Your task to perform on an android device: Open internet settings Image 0: 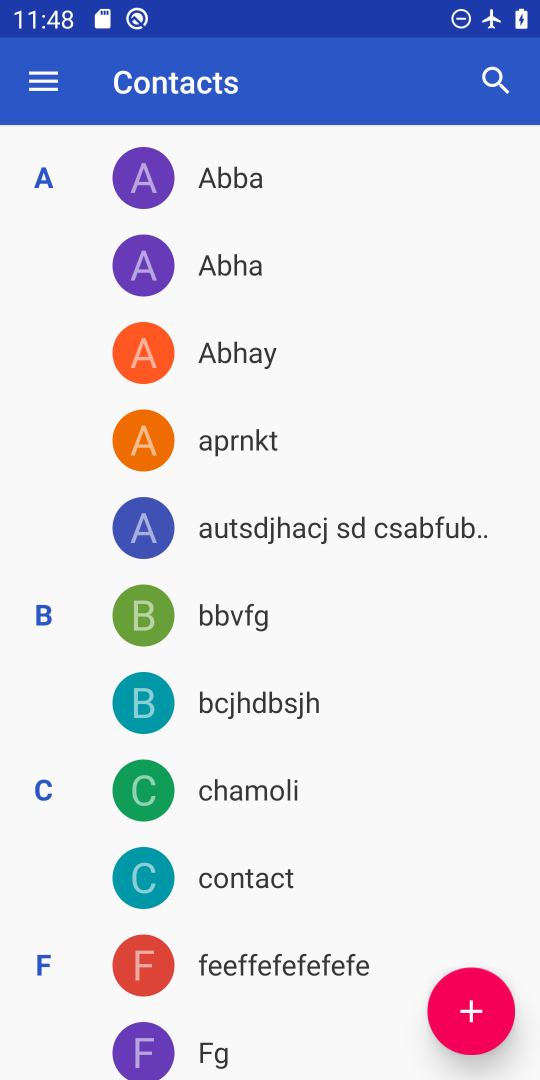
Step 0: press home button
Your task to perform on an android device: Open internet settings Image 1: 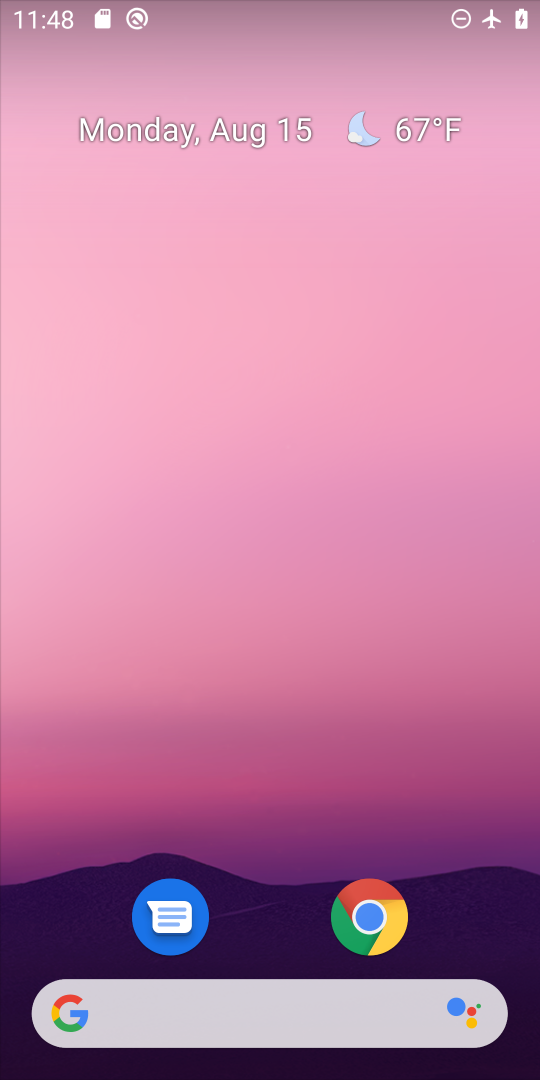
Step 1: drag from (267, 636) to (259, 37)
Your task to perform on an android device: Open internet settings Image 2: 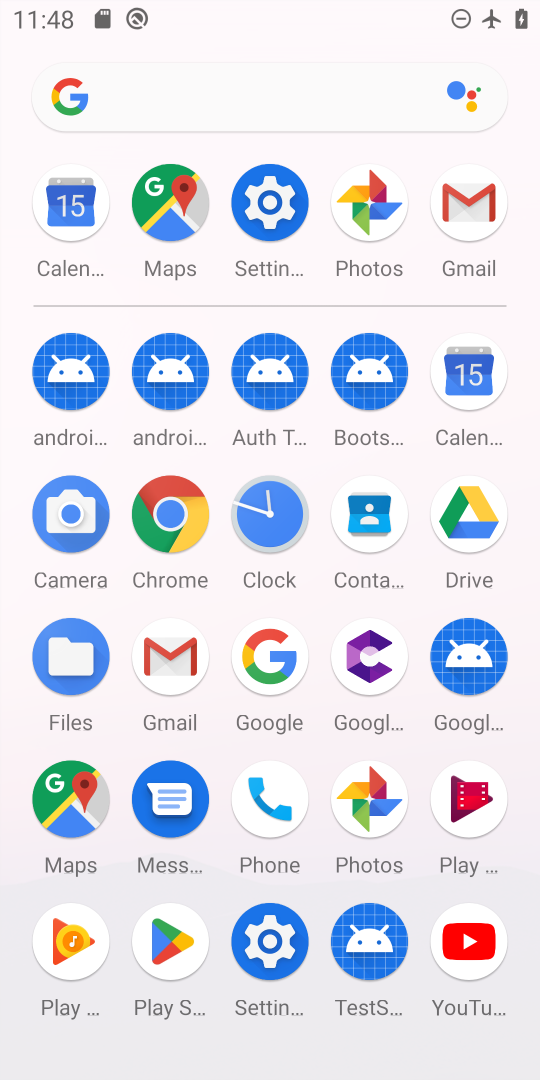
Step 2: click (270, 185)
Your task to perform on an android device: Open internet settings Image 3: 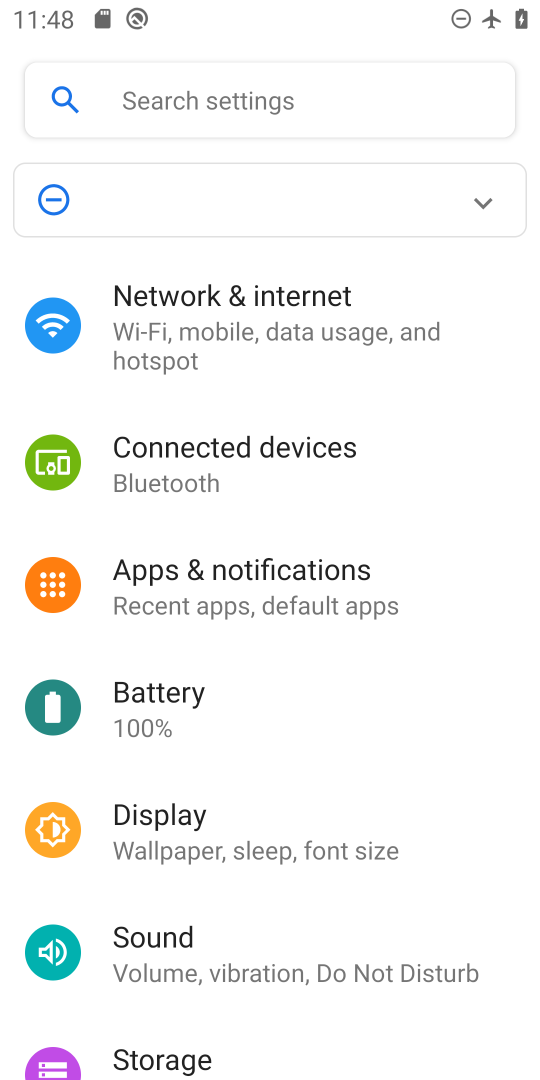
Step 3: click (274, 309)
Your task to perform on an android device: Open internet settings Image 4: 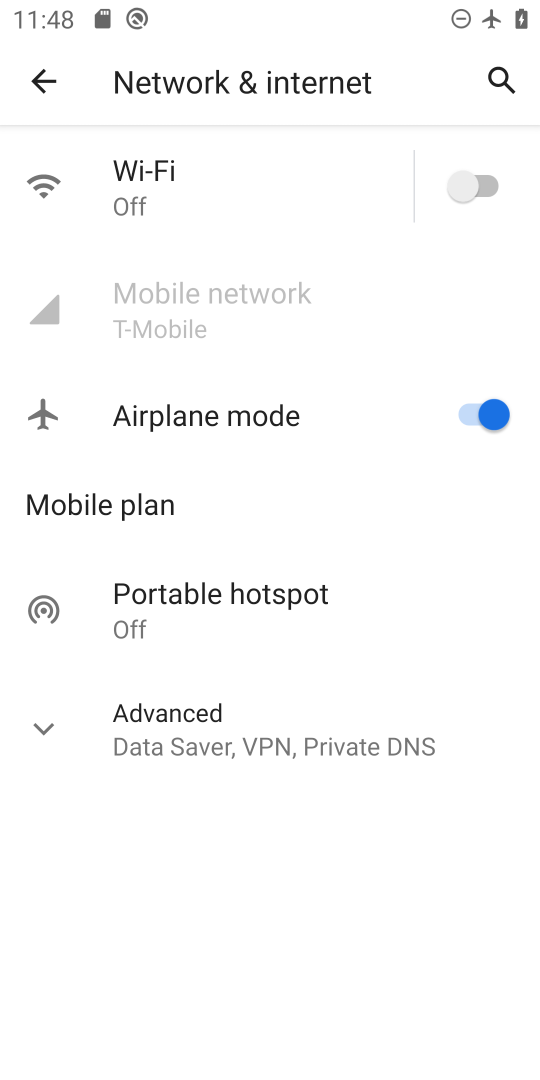
Step 4: task complete